Your task to perform on an android device: check data usage Image 0: 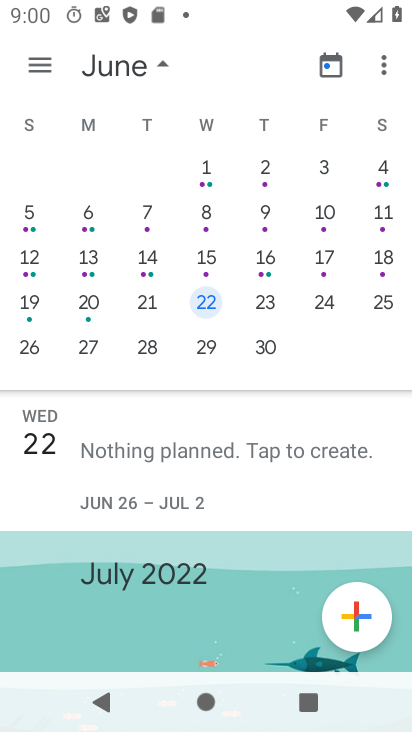
Step 0: press home button
Your task to perform on an android device: check data usage Image 1: 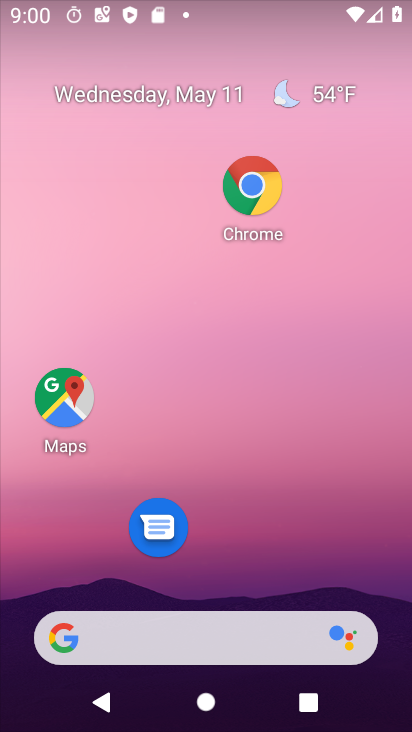
Step 1: drag from (237, 550) to (294, 111)
Your task to perform on an android device: check data usage Image 2: 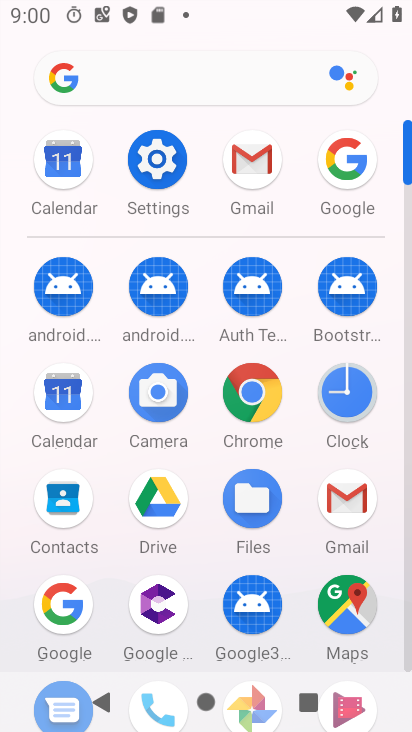
Step 2: click (155, 157)
Your task to perform on an android device: check data usage Image 3: 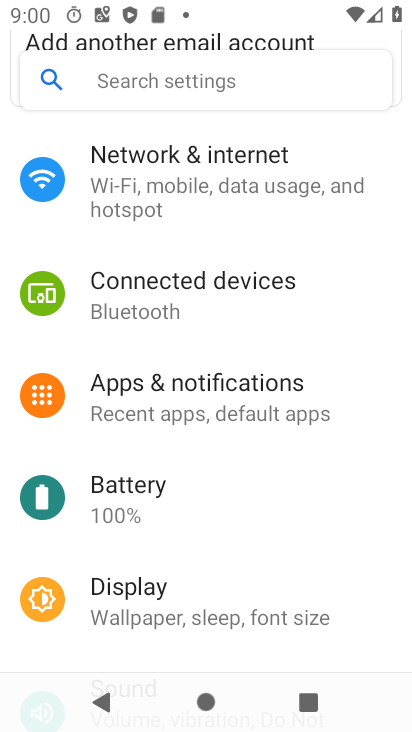
Step 3: click (187, 185)
Your task to perform on an android device: check data usage Image 4: 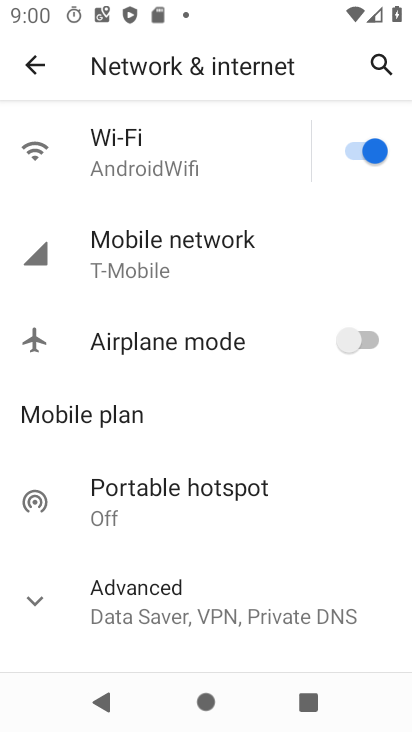
Step 4: click (197, 257)
Your task to perform on an android device: check data usage Image 5: 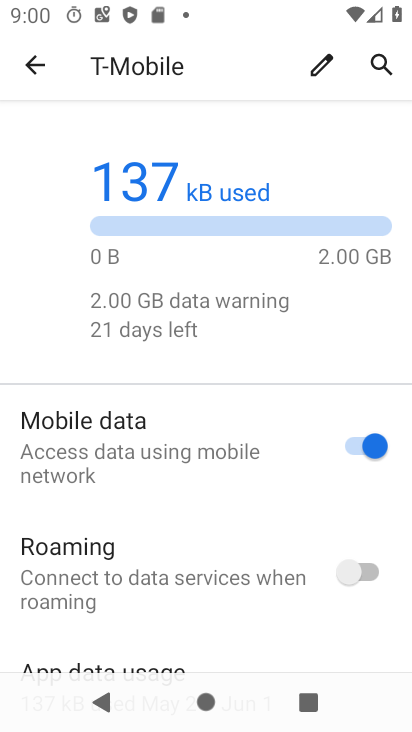
Step 5: task complete